Your task to perform on an android device: open app "Grab" (install if not already installed) Image 0: 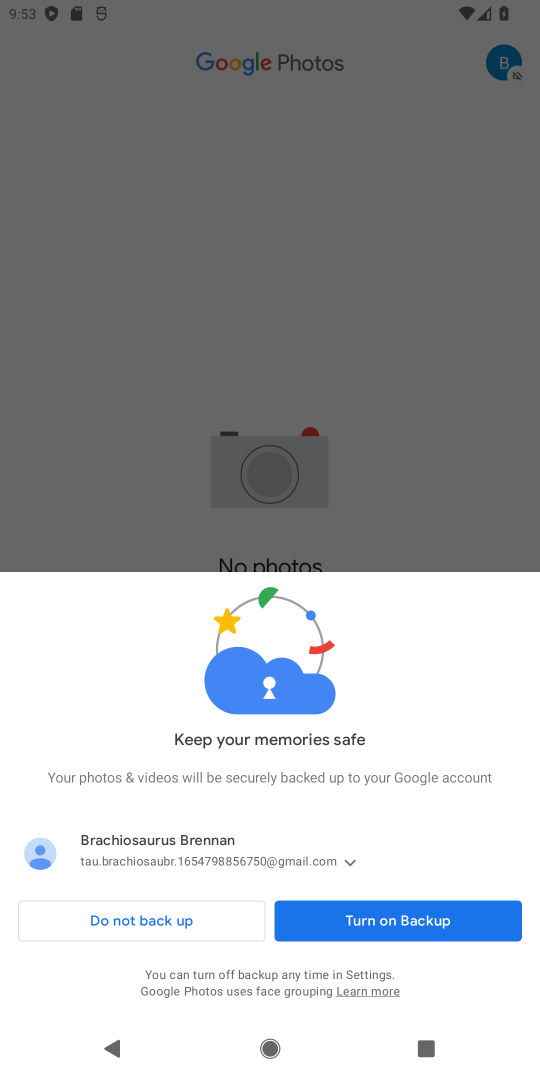
Step 0: press home button
Your task to perform on an android device: open app "Grab" (install if not already installed) Image 1: 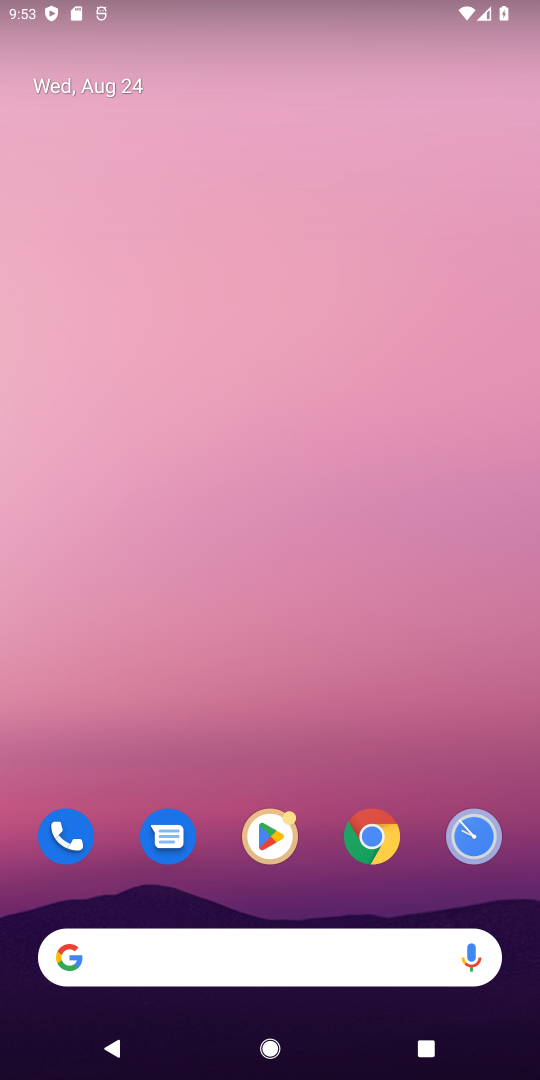
Step 1: click (270, 824)
Your task to perform on an android device: open app "Grab" (install if not already installed) Image 2: 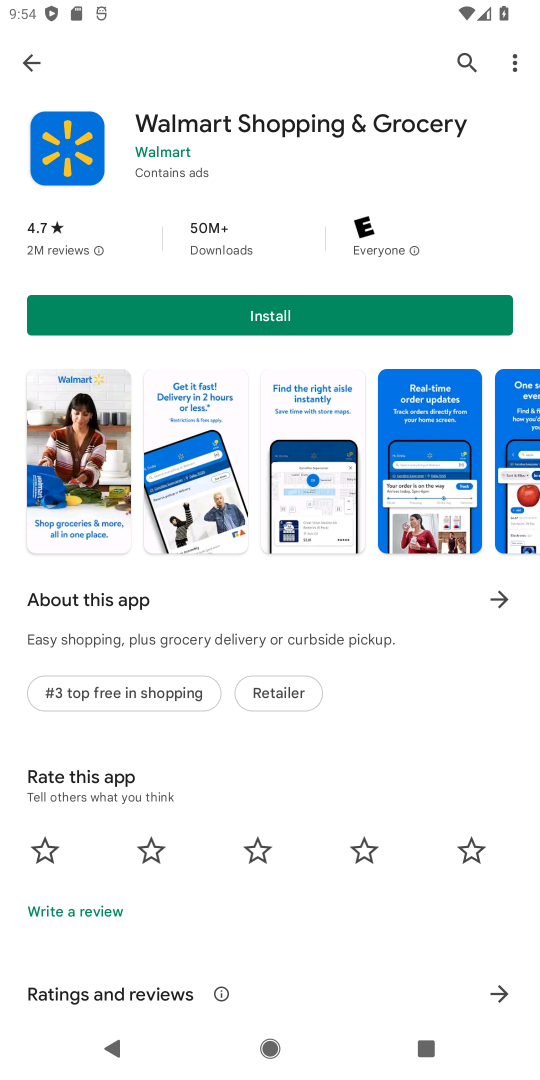
Step 2: click (465, 66)
Your task to perform on an android device: open app "Grab" (install if not already installed) Image 3: 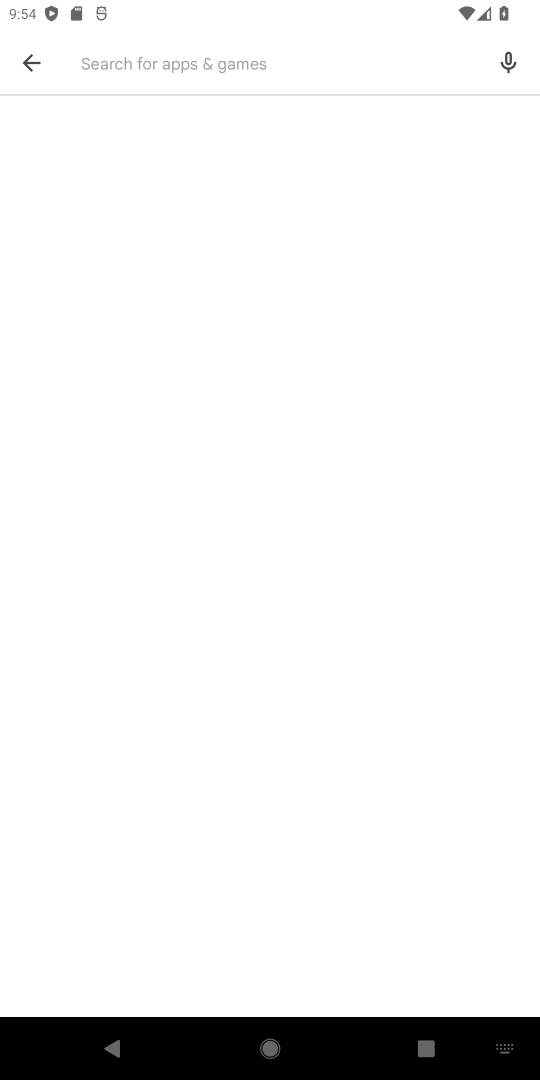
Step 3: type "Grab"
Your task to perform on an android device: open app "Grab" (install if not already installed) Image 4: 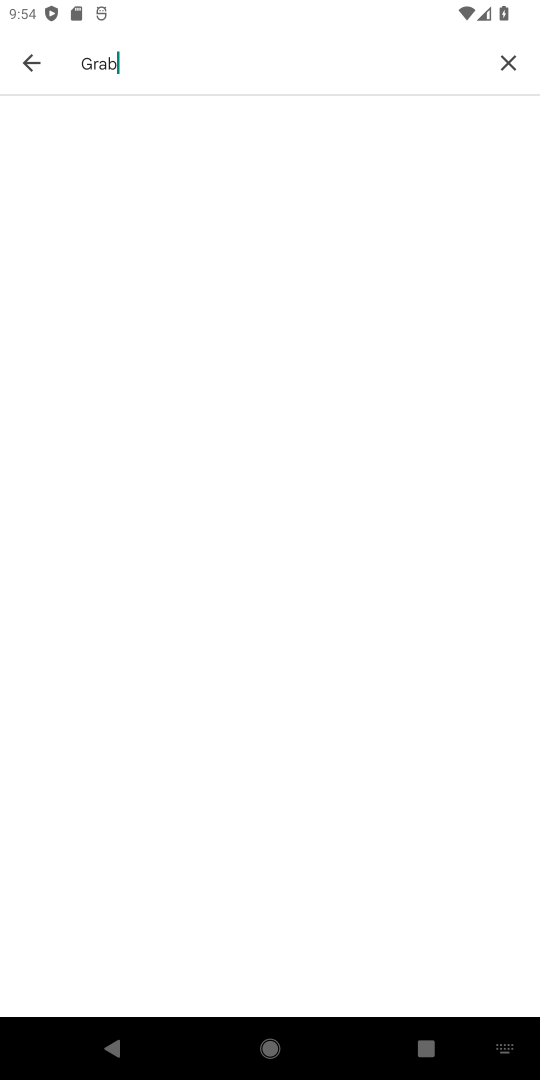
Step 4: type ""
Your task to perform on an android device: open app "Grab" (install if not already installed) Image 5: 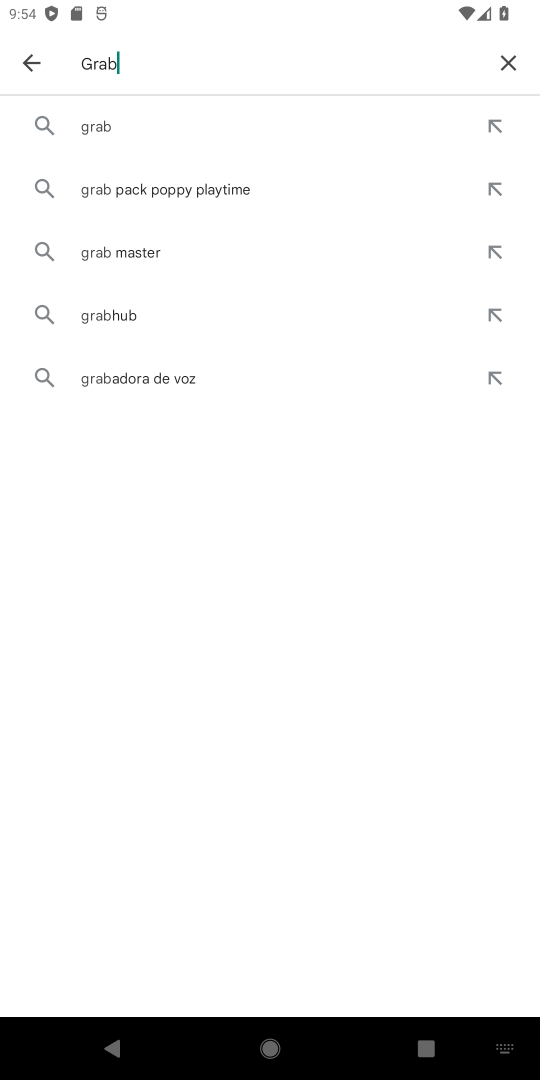
Step 5: click (71, 124)
Your task to perform on an android device: open app "Grab" (install if not already installed) Image 6: 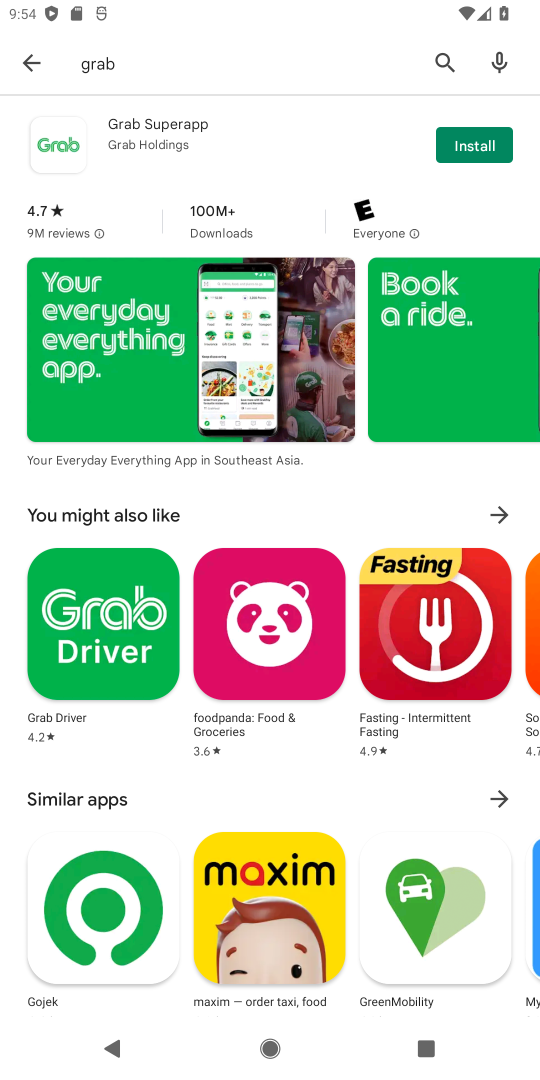
Step 6: task complete